Your task to perform on an android device: toggle pop-ups in chrome Image 0: 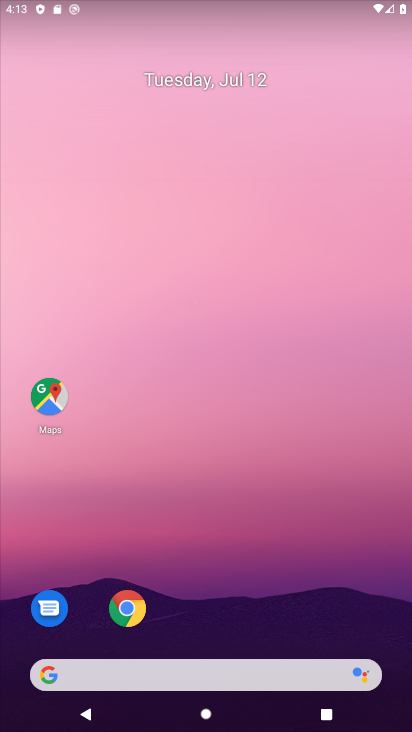
Step 0: click (117, 607)
Your task to perform on an android device: toggle pop-ups in chrome Image 1: 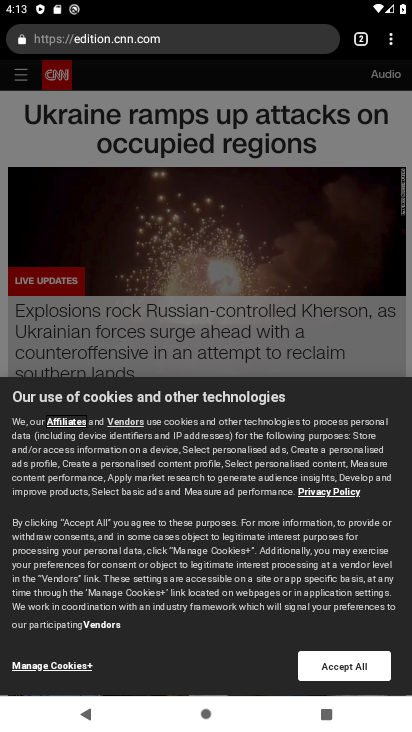
Step 1: click (401, 39)
Your task to perform on an android device: toggle pop-ups in chrome Image 2: 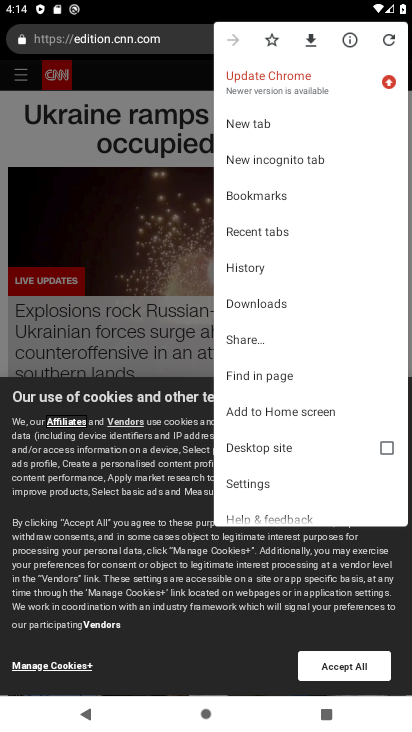
Step 2: drag from (242, 453) to (256, 141)
Your task to perform on an android device: toggle pop-ups in chrome Image 3: 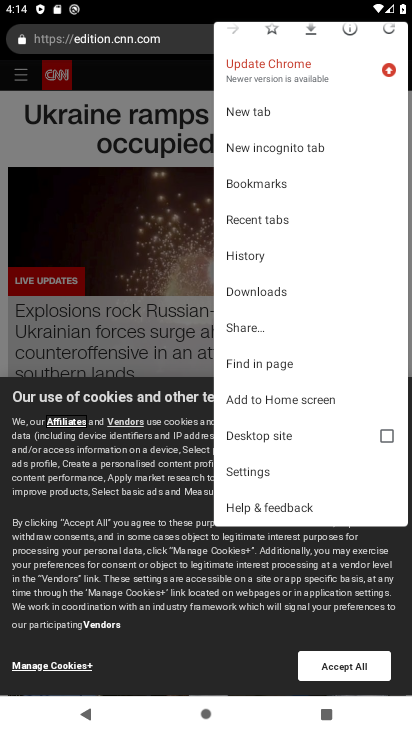
Step 3: click (260, 475)
Your task to perform on an android device: toggle pop-ups in chrome Image 4: 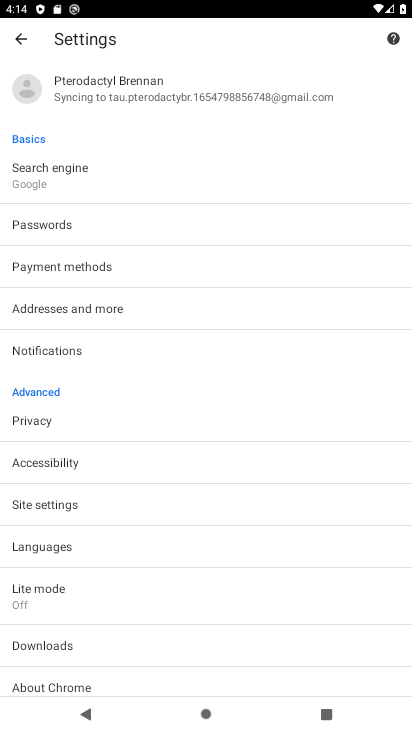
Step 4: click (114, 507)
Your task to perform on an android device: toggle pop-ups in chrome Image 5: 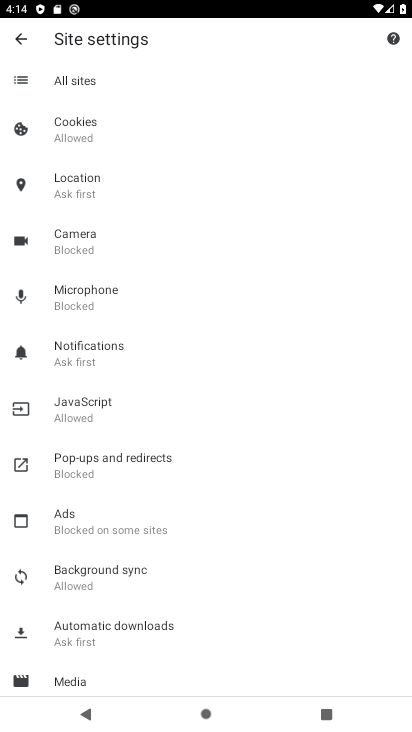
Step 5: drag from (133, 610) to (145, 418)
Your task to perform on an android device: toggle pop-ups in chrome Image 6: 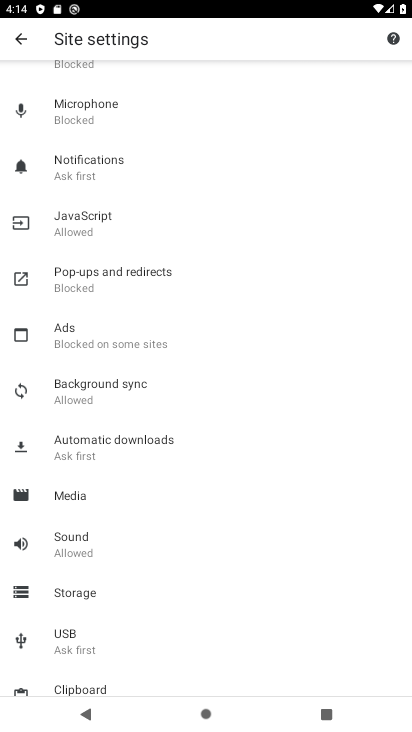
Step 6: click (86, 294)
Your task to perform on an android device: toggle pop-ups in chrome Image 7: 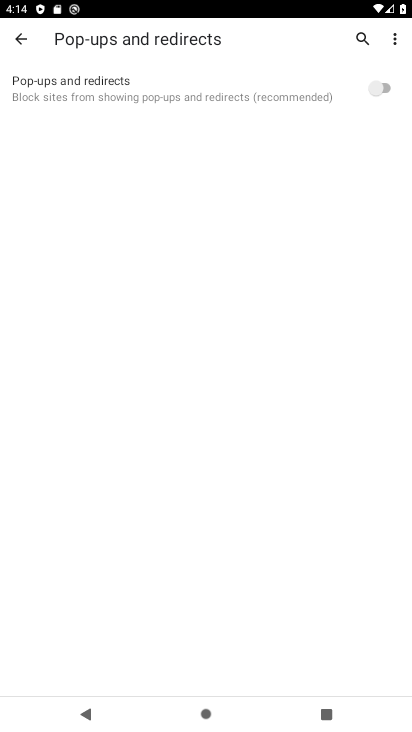
Step 7: click (382, 92)
Your task to perform on an android device: toggle pop-ups in chrome Image 8: 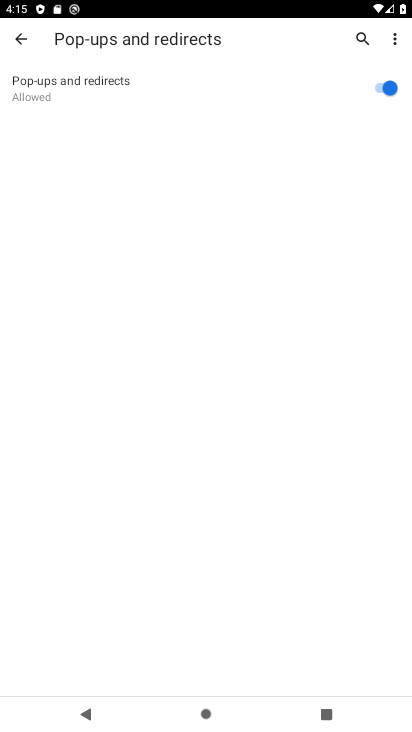
Step 8: task complete